Your task to perform on an android device: turn off data saver in the chrome app Image 0: 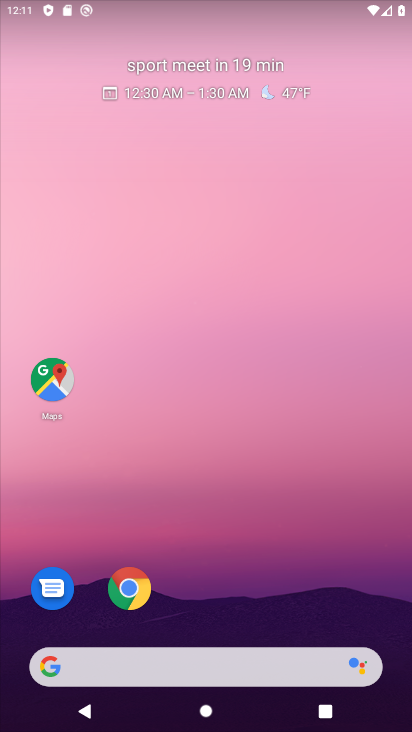
Step 0: drag from (238, 541) to (314, 20)
Your task to perform on an android device: turn off data saver in the chrome app Image 1: 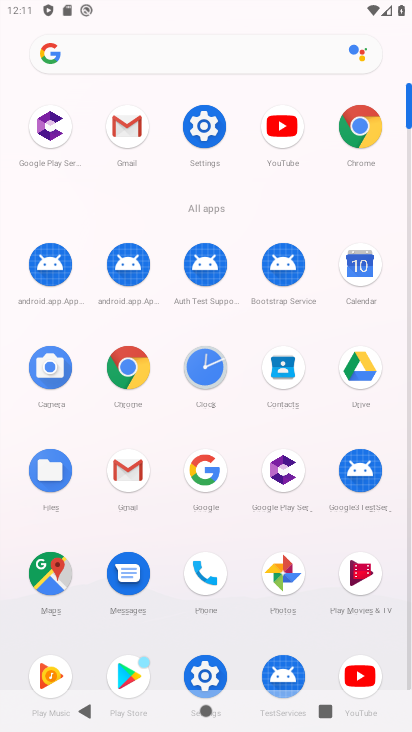
Step 1: click (358, 122)
Your task to perform on an android device: turn off data saver in the chrome app Image 2: 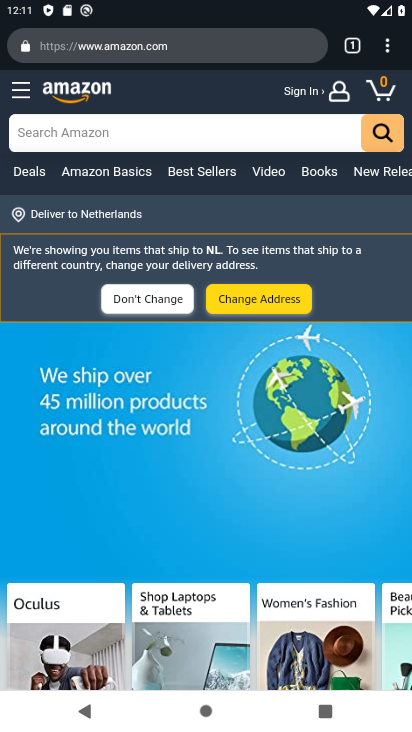
Step 2: drag from (384, 50) to (270, 555)
Your task to perform on an android device: turn off data saver in the chrome app Image 3: 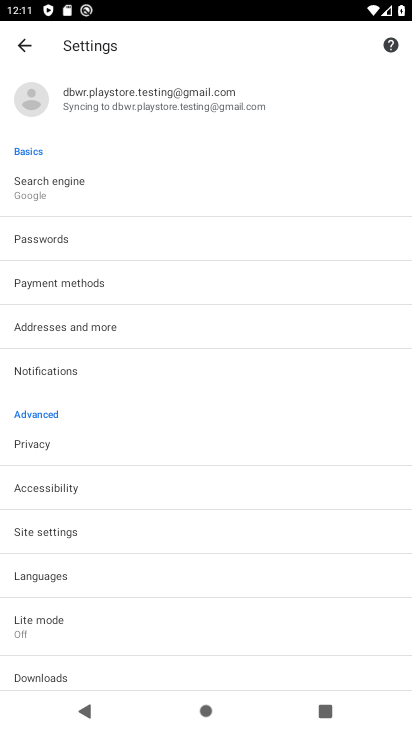
Step 3: click (186, 635)
Your task to perform on an android device: turn off data saver in the chrome app Image 4: 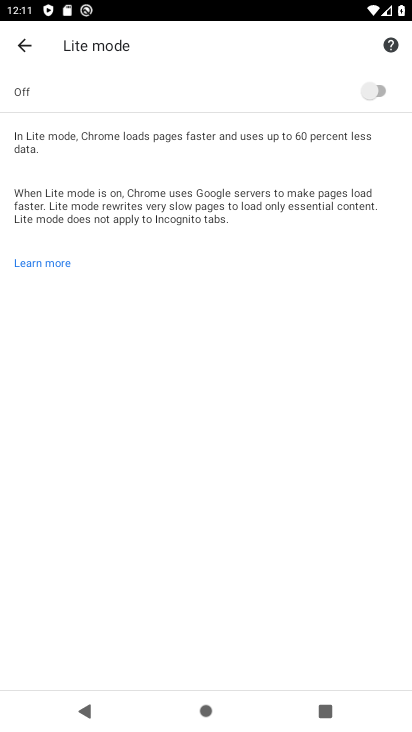
Step 4: task complete